Your task to perform on an android device: change alarm snooze length Image 0: 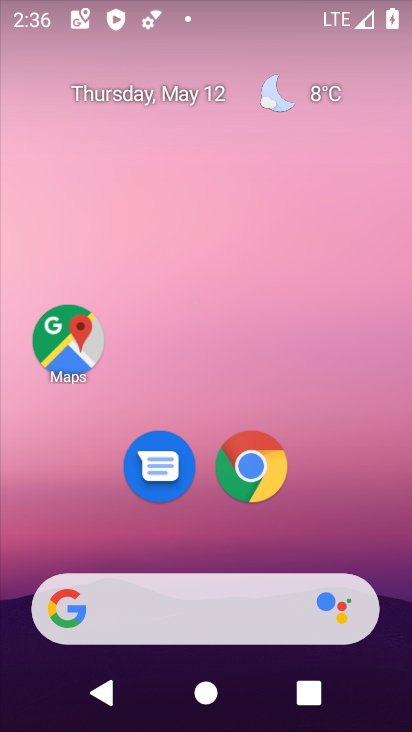
Step 0: drag from (287, 541) to (188, 121)
Your task to perform on an android device: change alarm snooze length Image 1: 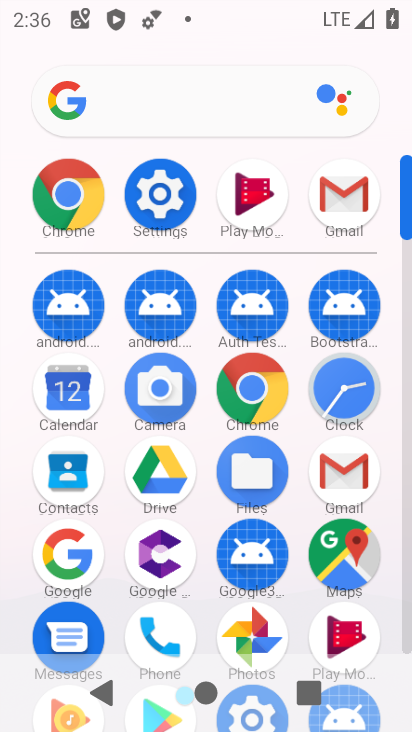
Step 1: click (338, 388)
Your task to perform on an android device: change alarm snooze length Image 2: 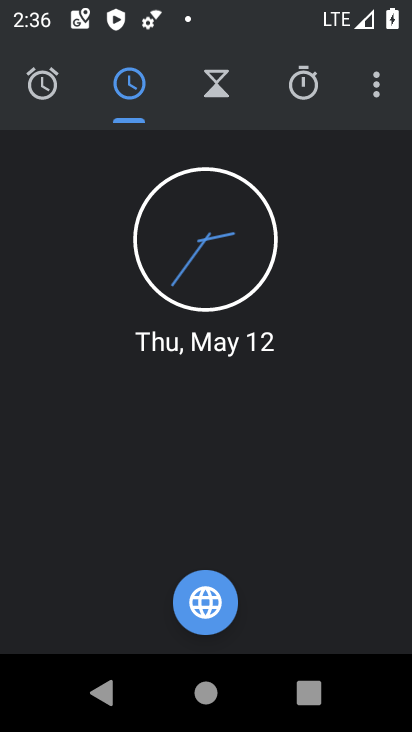
Step 2: click (377, 96)
Your task to perform on an android device: change alarm snooze length Image 3: 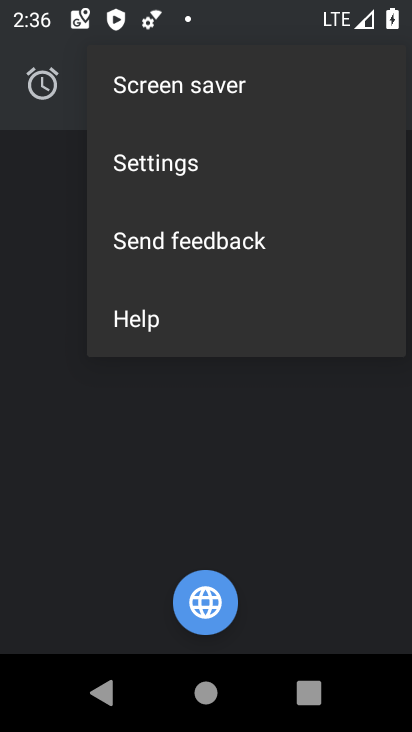
Step 3: click (173, 164)
Your task to perform on an android device: change alarm snooze length Image 4: 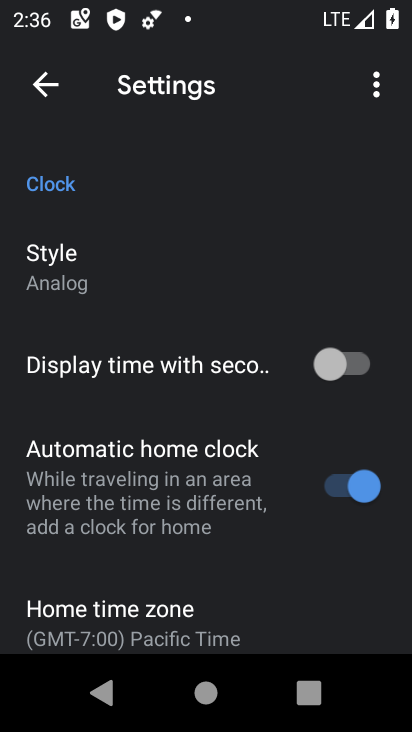
Step 4: drag from (176, 623) to (216, 190)
Your task to perform on an android device: change alarm snooze length Image 5: 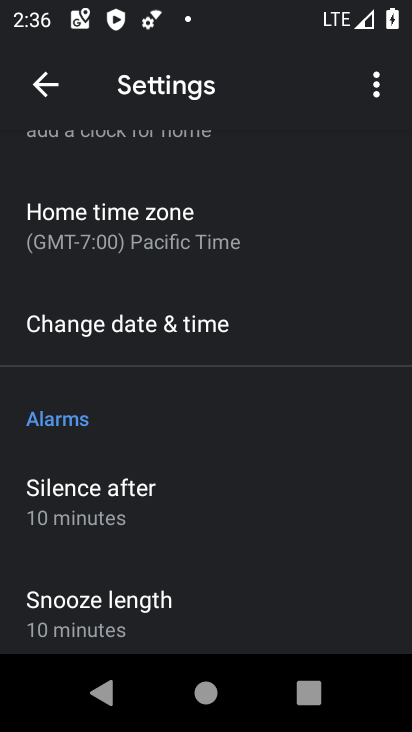
Step 5: click (140, 608)
Your task to perform on an android device: change alarm snooze length Image 6: 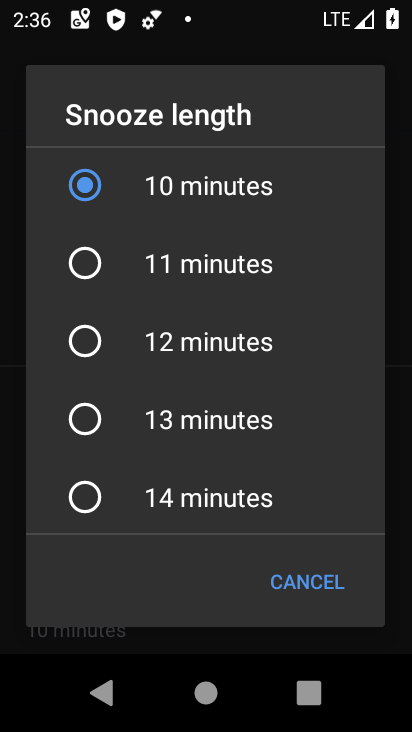
Step 6: click (86, 497)
Your task to perform on an android device: change alarm snooze length Image 7: 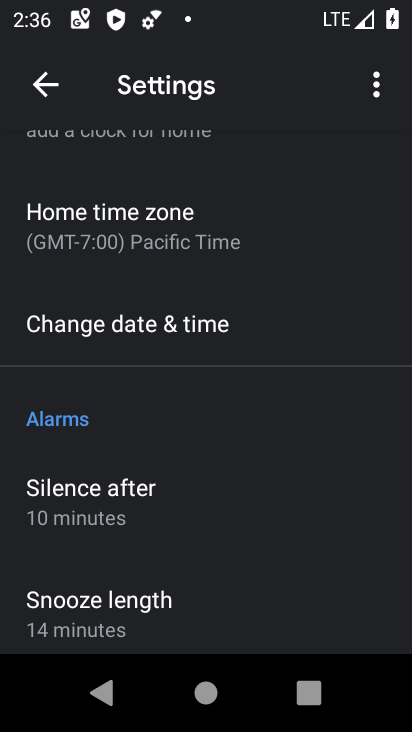
Step 7: task complete